Your task to perform on an android device: Show me popular videos on Youtube Image 0: 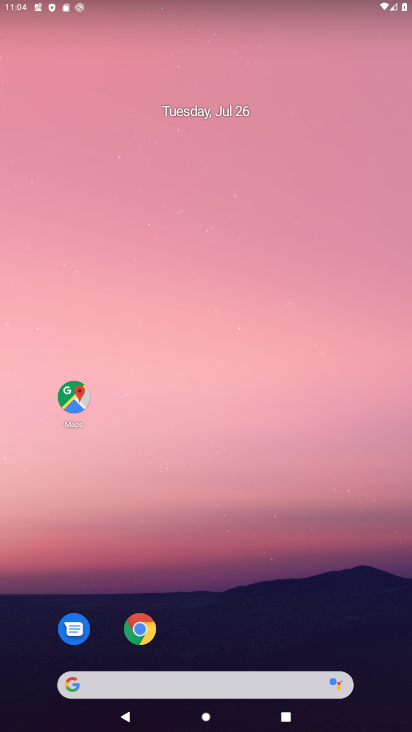
Step 0: press home button
Your task to perform on an android device: Show me popular videos on Youtube Image 1: 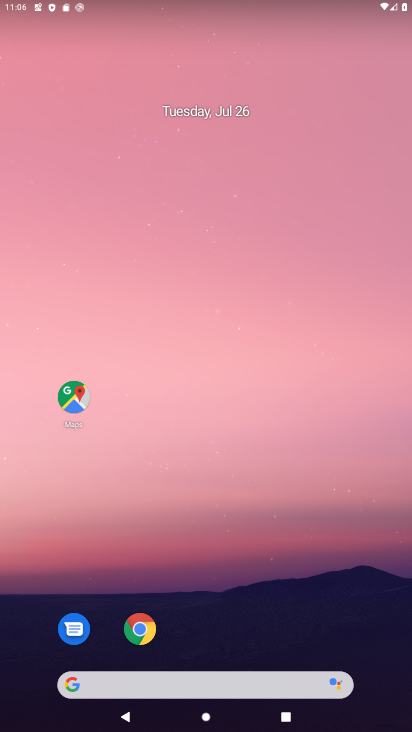
Step 1: drag from (252, 642) to (257, 116)
Your task to perform on an android device: Show me popular videos on Youtube Image 2: 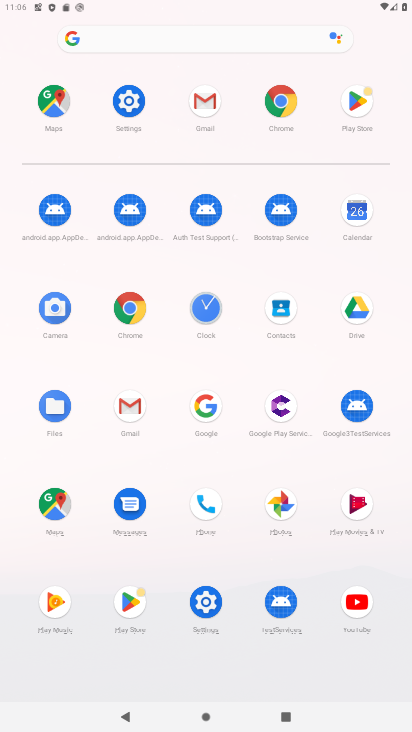
Step 2: click (344, 608)
Your task to perform on an android device: Show me popular videos on Youtube Image 3: 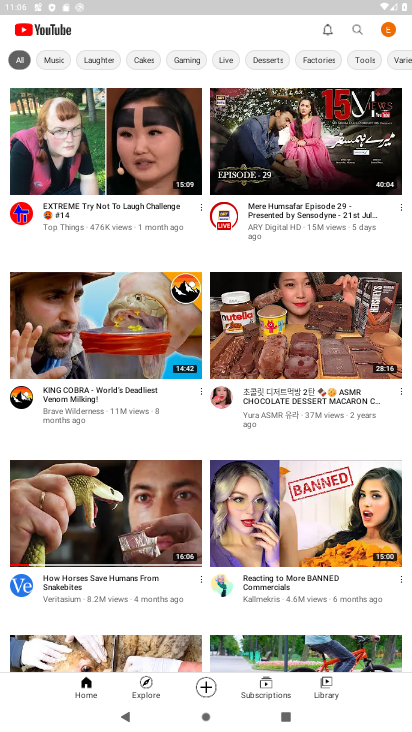
Step 3: task complete